Your task to perform on an android device: Go to Maps Image 0: 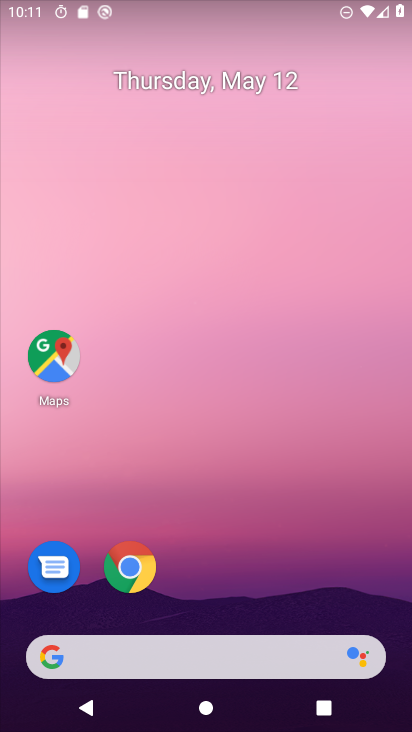
Step 0: click (193, 122)
Your task to perform on an android device: Go to Maps Image 1: 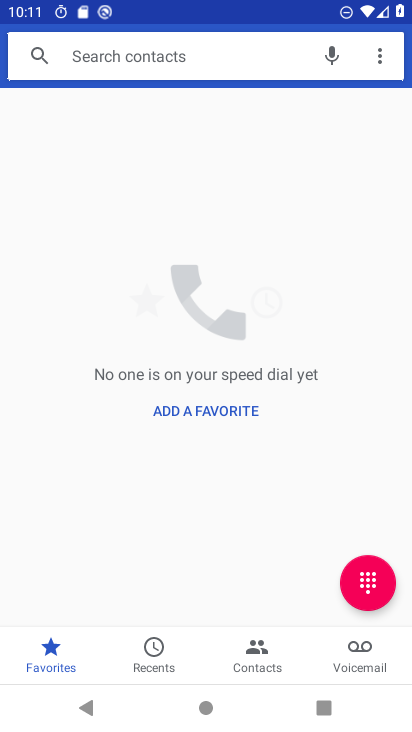
Step 1: press home button
Your task to perform on an android device: Go to Maps Image 2: 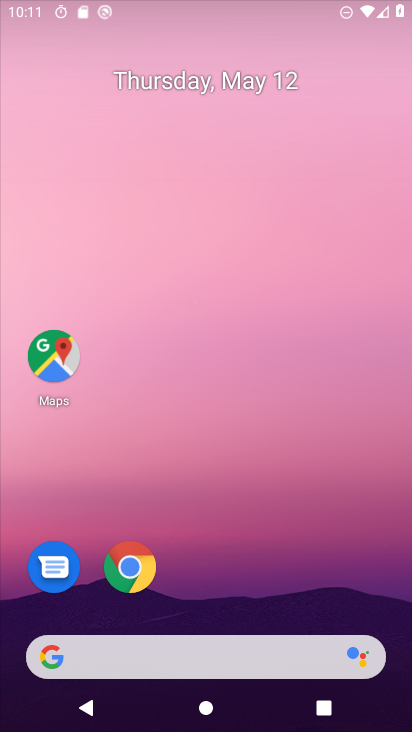
Step 2: drag from (249, 627) to (244, 115)
Your task to perform on an android device: Go to Maps Image 3: 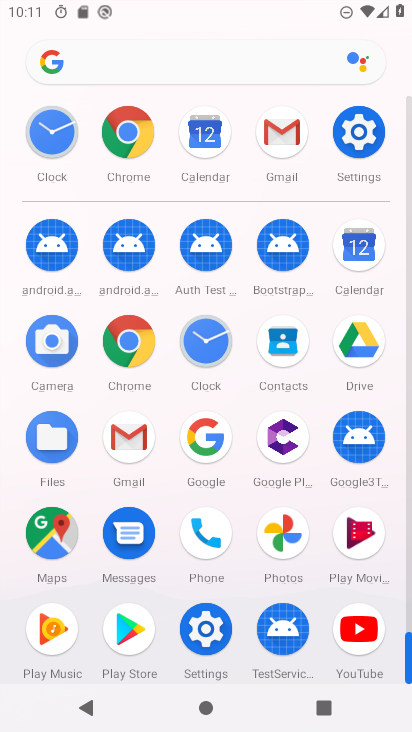
Step 3: click (56, 556)
Your task to perform on an android device: Go to Maps Image 4: 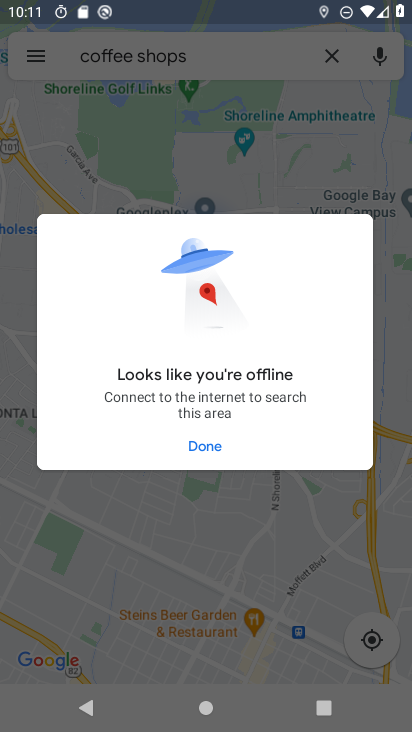
Step 4: click (209, 437)
Your task to perform on an android device: Go to Maps Image 5: 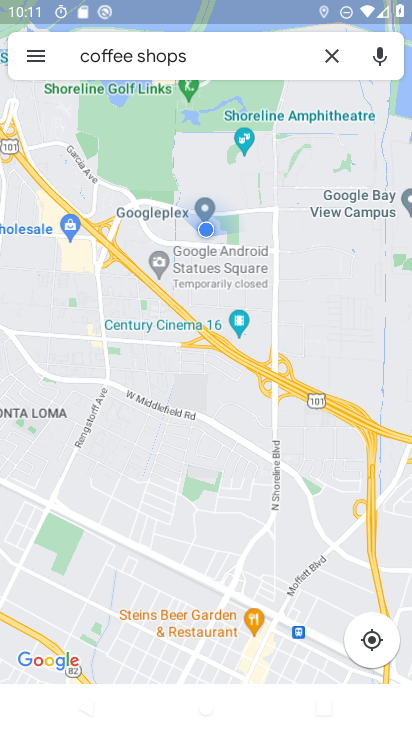
Step 5: task complete